Your task to perform on an android device: Open Android settings Image 0: 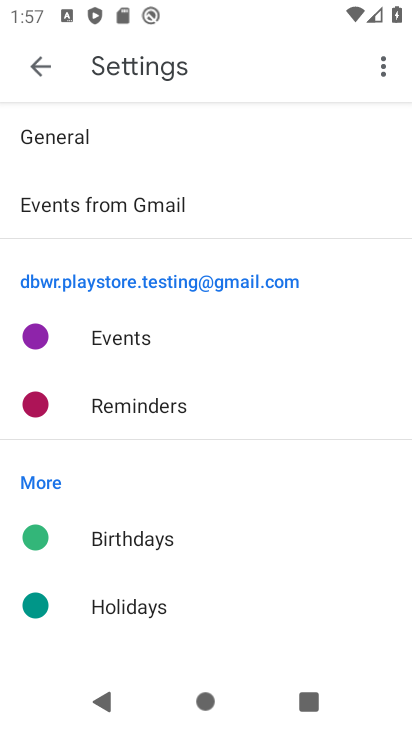
Step 0: task complete